Your task to perform on an android device: When is my next appointment? Image 0: 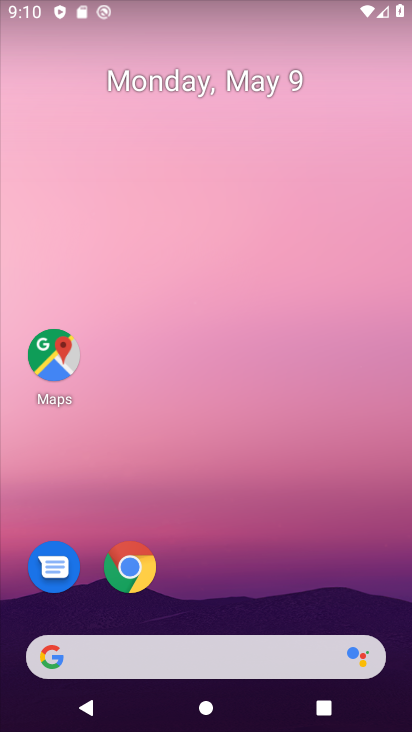
Step 0: drag from (194, 576) to (256, 183)
Your task to perform on an android device: When is my next appointment? Image 1: 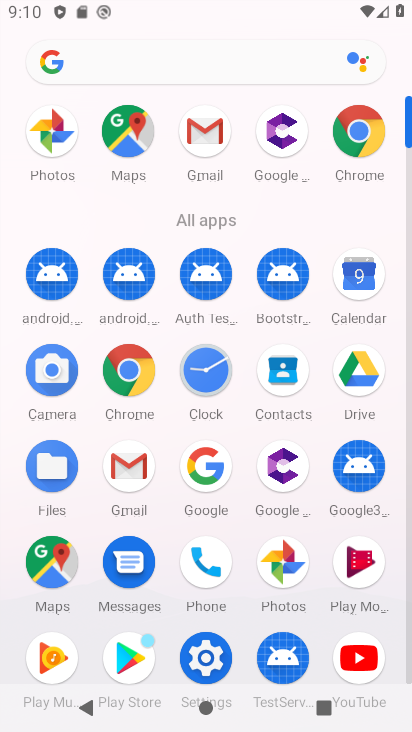
Step 1: click (373, 281)
Your task to perform on an android device: When is my next appointment? Image 2: 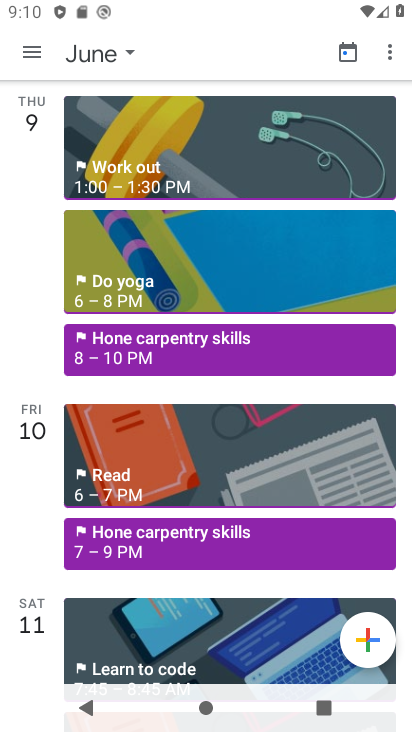
Step 2: drag from (119, 268) to (128, 638)
Your task to perform on an android device: When is my next appointment? Image 3: 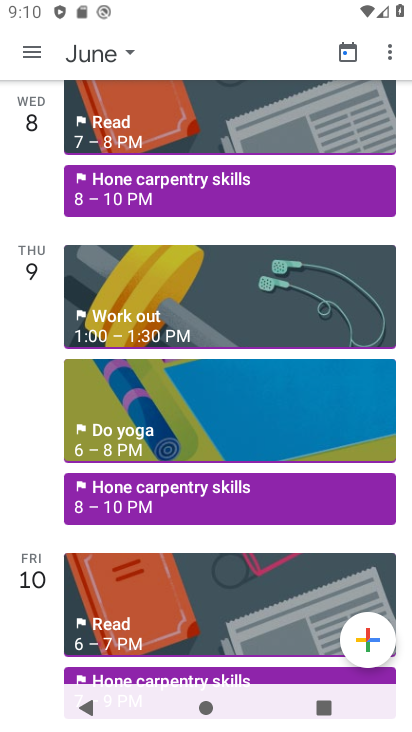
Step 3: click (123, 47)
Your task to perform on an android device: When is my next appointment? Image 4: 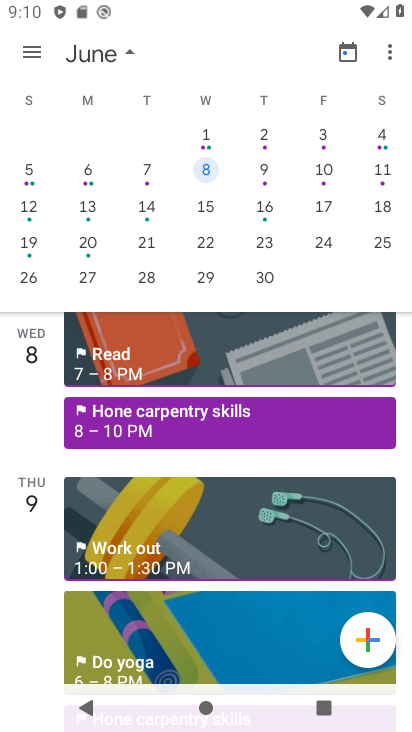
Step 4: drag from (66, 194) to (410, 138)
Your task to perform on an android device: When is my next appointment? Image 5: 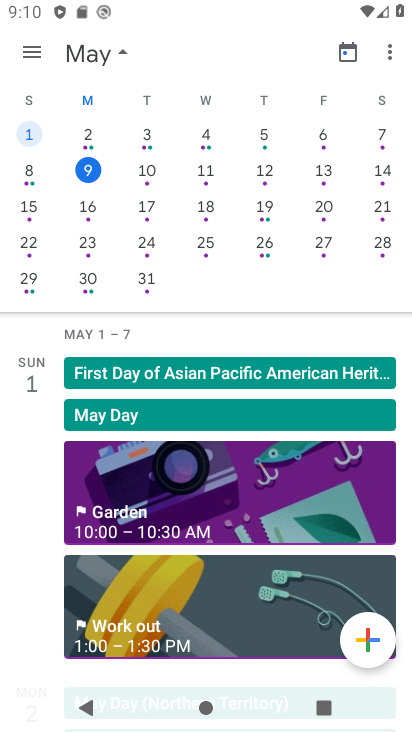
Step 5: click (85, 171)
Your task to perform on an android device: When is my next appointment? Image 6: 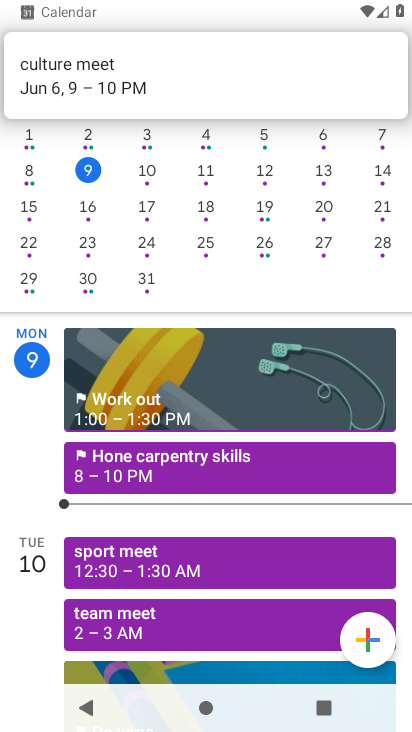
Step 6: click (86, 165)
Your task to perform on an android device: When is my next appointment? Image 7: 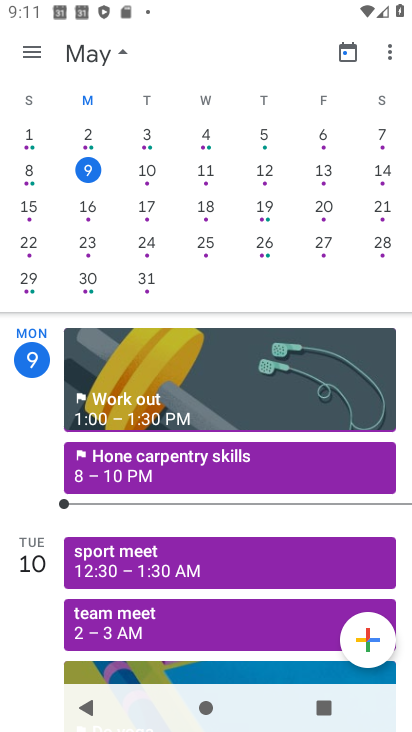
Step 7: click (171, 406)
Your task to perform on an android device: When is my next appointment? Image 8: 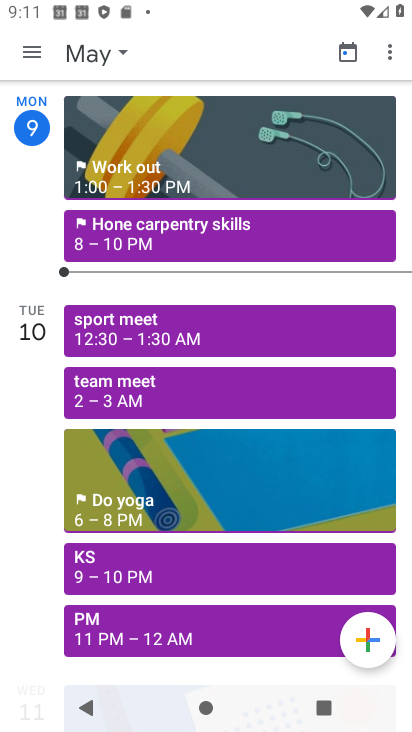
Step 8: click (144, 137)
Your task to perform on an android device: When is my next appointment? Image 9: 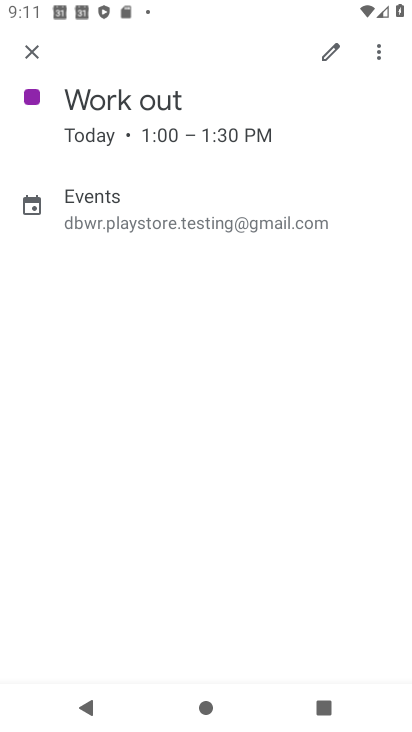
Step 9: task complete